Your task to perform on an android device: add a contact Image 0: 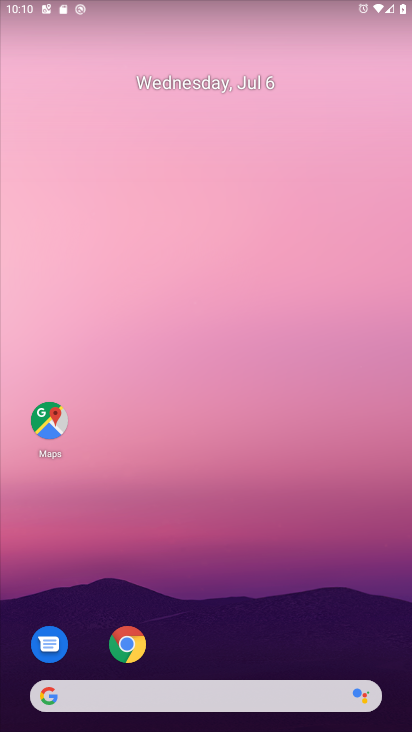
Step 0: drag from (259, 687) to (258, 129)
Your task to perform on an android device: add a contact Image 1: 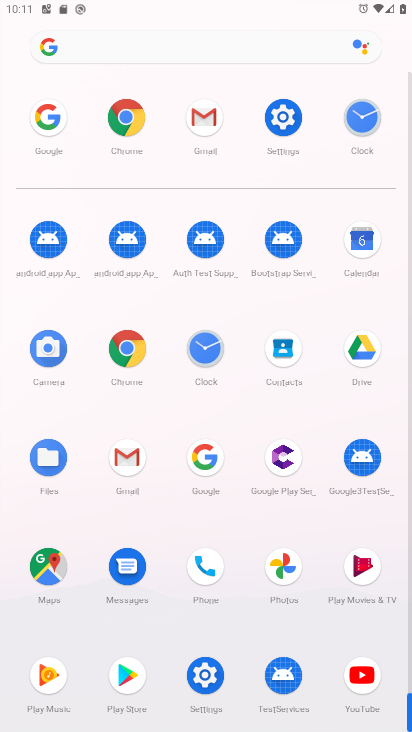
Step 1: click (287, 352)
Your task to perform on an android device: add a contact Image 2: 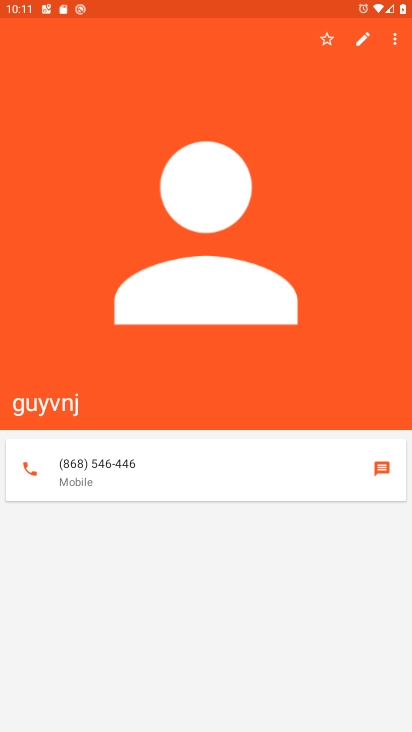
Step 2: press back button
Your task to perform on an android device: add a contact Image 3: 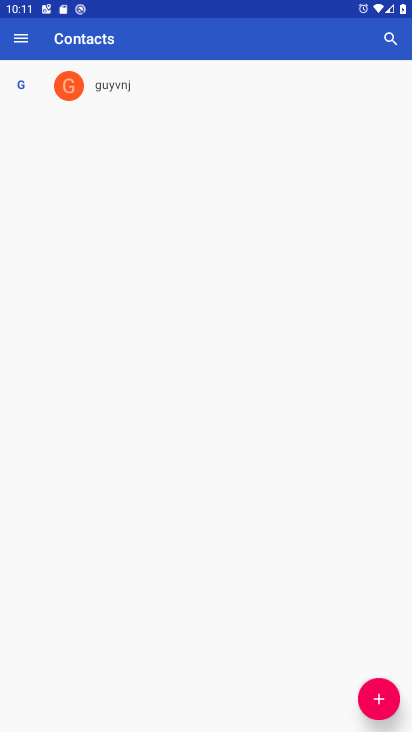
Step 3: click (381, 705)
Your task to perform on an android device: add a contact Image 4: 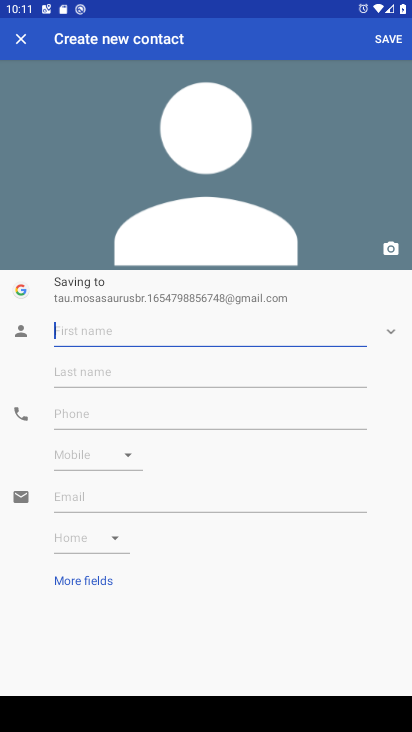
Step 4: type "vfytfdfbdftf"
Your task to perform on an android device: add a contact Image 5: 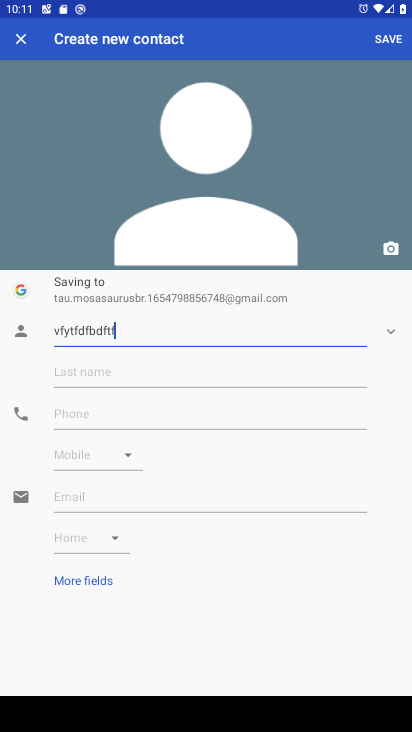
Step 5: click (272, 433)
Your task to perform on an android device: add a contact Image 6: 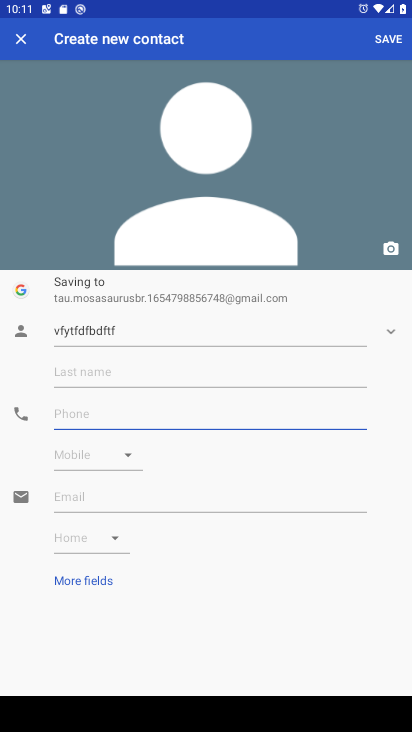
Step 6: type "76757686567"
Your task to perform on an android device: add a contact Image 7: 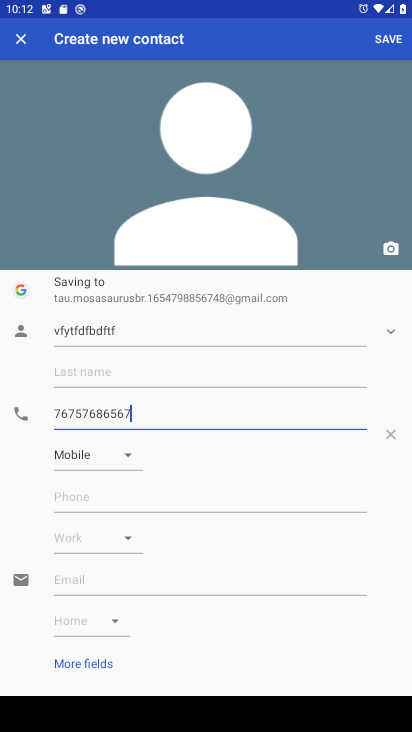
Step 7: click (404, 44)
Your task to perform on an android device: add a contact Image 8: 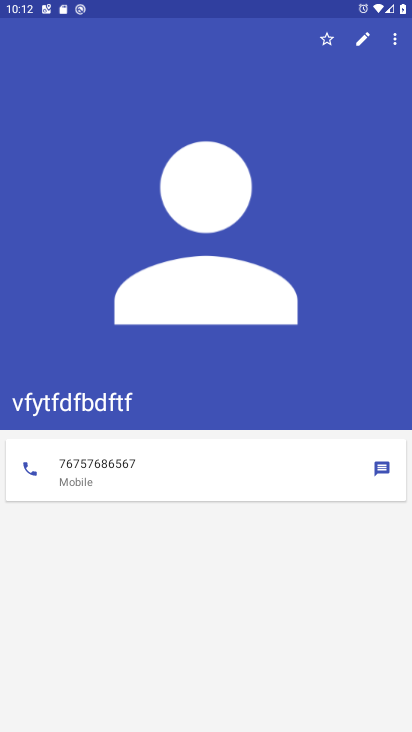
Step 8: task complete